Your task to perform on an android device: manage bookmarks in the chrome app Image 0: 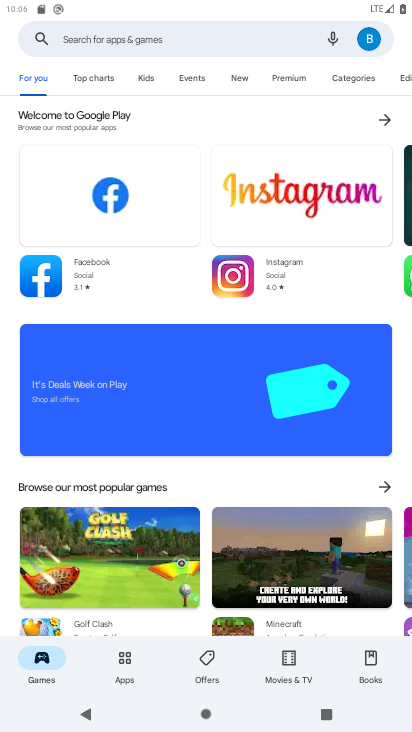
Step 0: press home button
Your task to perform on an android device: manage bookmarks in the chrome app Image 1: 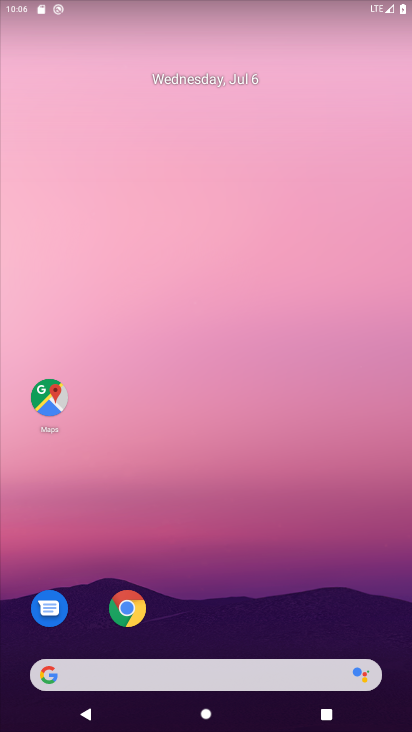
Step 1: drag from (227, 535) to (295, 8)
Your task to perform on an android device: manage bookmarks in the chrome app Image 2: 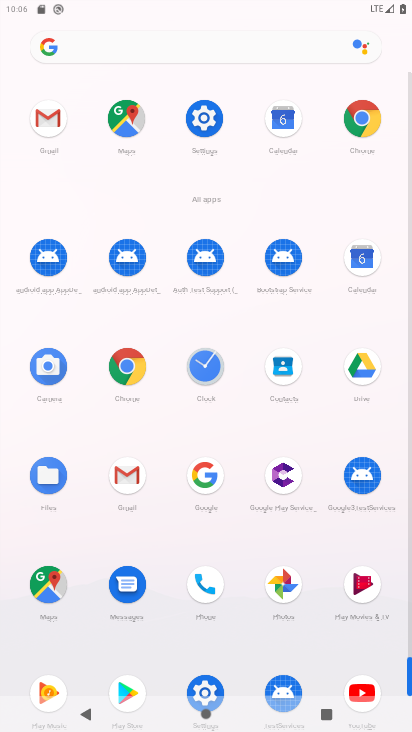
Step 2: click (120, 361)
Your task to perform on an android device: manage bookmarks in the chrome app Image 3: 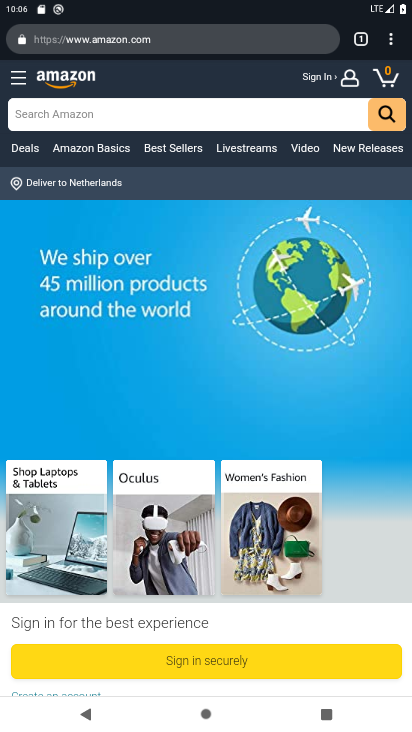
Step 3: click (393, 41)
Your task to perform on an android device: manage bookmarks in the chrome app Image 4: 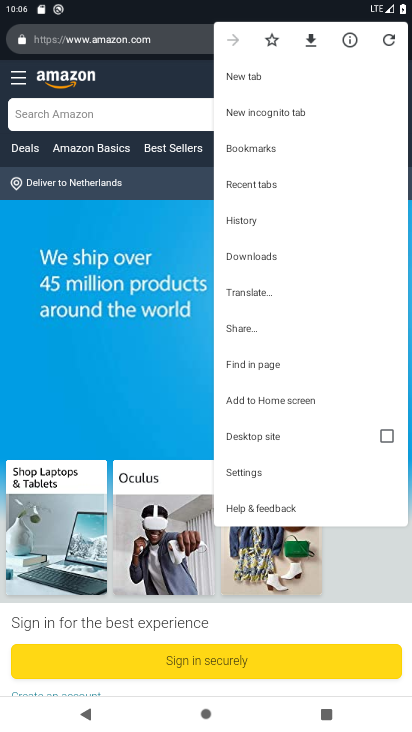
Step 4: click (259, 144)
Your task to perform on an android device: manage bookmarks in the chrome app Image 5: 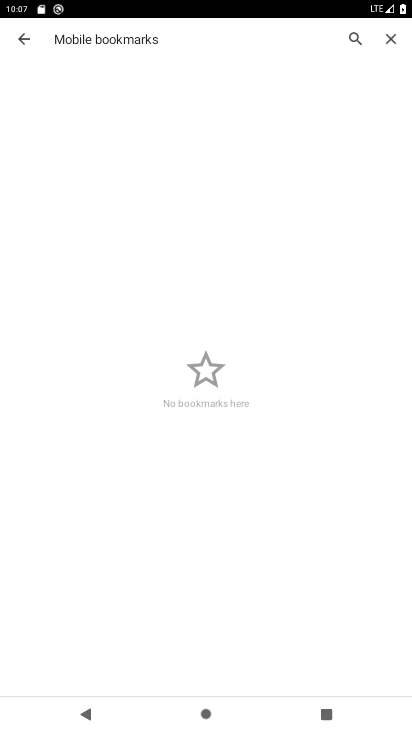
Step 5: task complete